Your task to perform on an android device: turn off priority inbox in the gmail app Image 0: 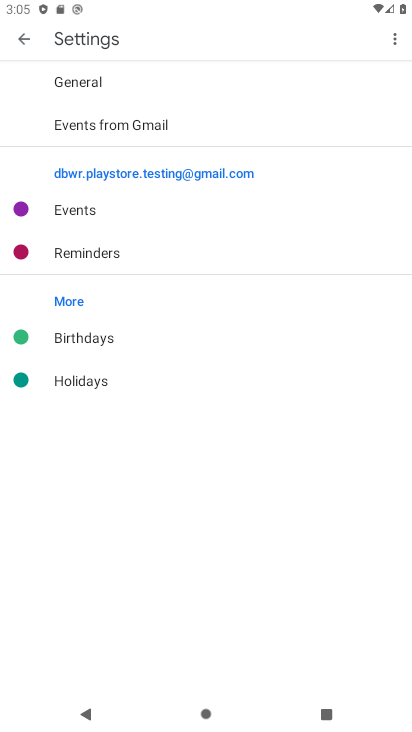
Step 0: press home button
Your task to perform on an android device: turn off priority inbox in the gmail app Image 1: 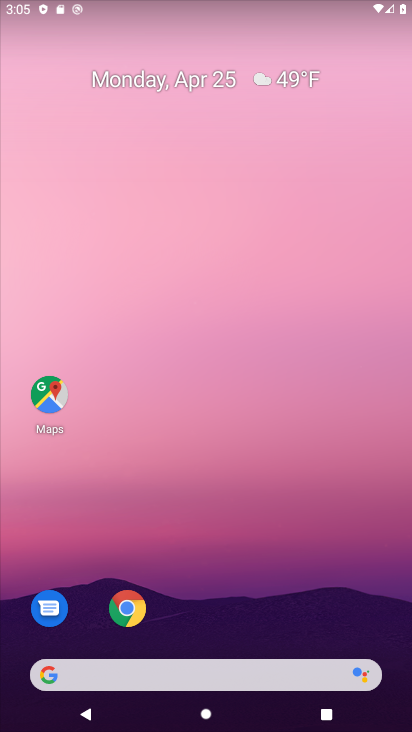
Step 1: drag from (197, 674) to (171, 168)
Your task to perform on an android device: turn off priority inbox in the gmail app Image 2: 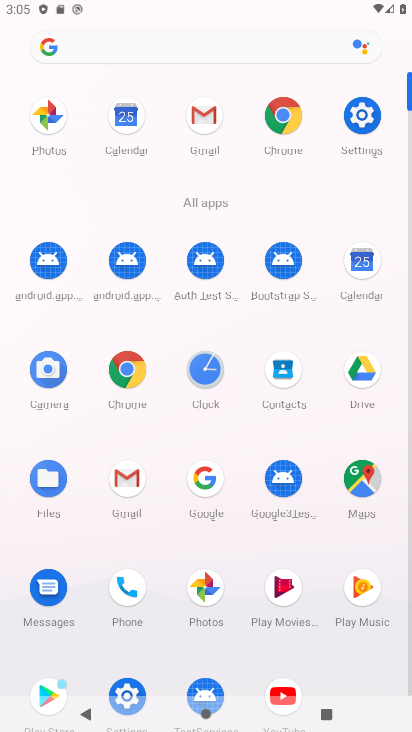
Step 2: click (132, 496)
Your task to perform on an android device: turn off priority inbox in the gmail app Image 3: 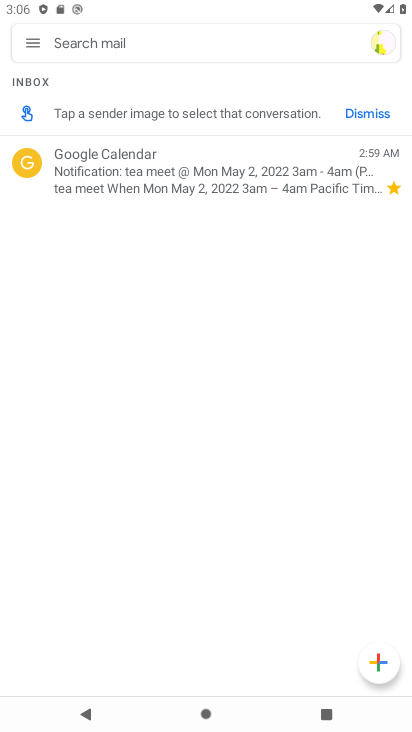
Step 3: click (43, 45)
Your task to perform on an android device: turn off priority inbox in the gmail app Image 4: 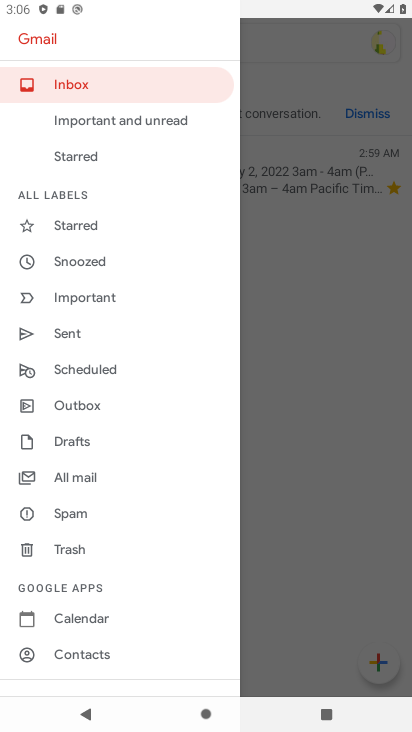
Step 4: drag from (98, 581) to (106, 157)
Your task to perform on an android device: turn off priority inbox in the gmail app Image 5: 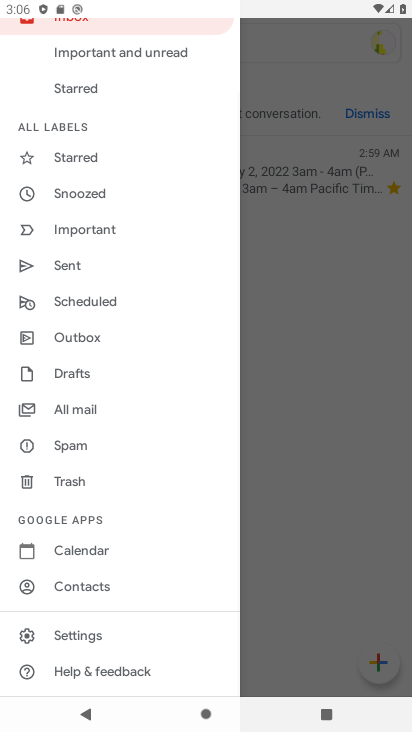
Step 5: click (76, 633)
Your task to perform on an android device: turn off priority inbox in the gmail app Image 6: 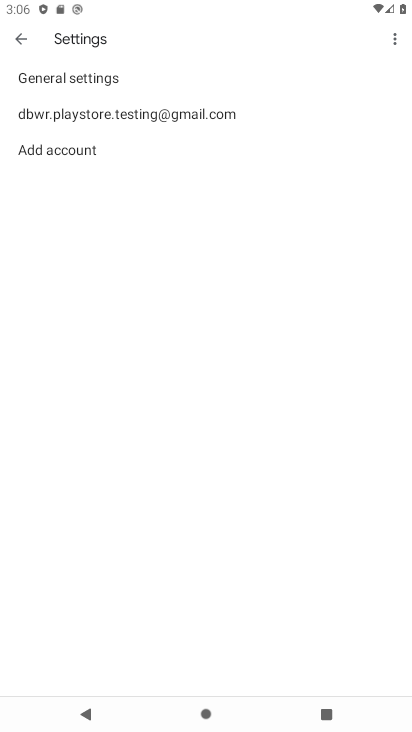
Step 6: click (135, 113)
Your task to perform on an android device: turn off priority inbox in the gmail app Image 7: 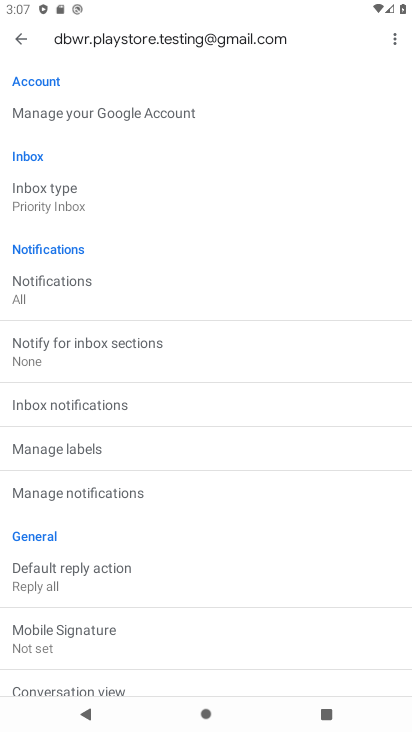
Step 7: click (80, 193)
Your task to perform on an android device: turn off priority inbox in the gmail app Image 8: 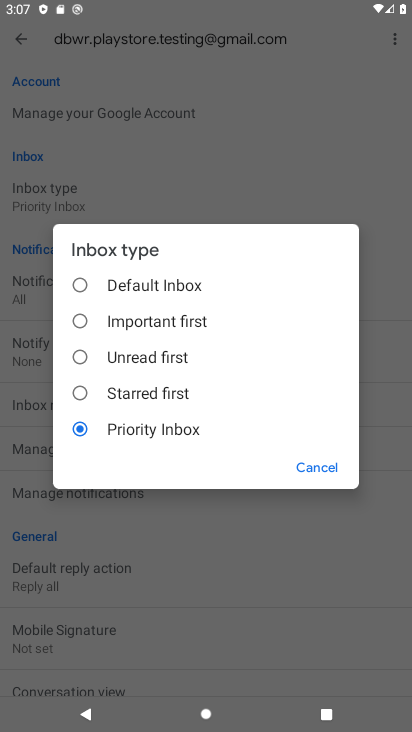
Step 8: click (110, 271)
Your task to perform on an android device: turn off priority inbox in the gmail app Image 9: 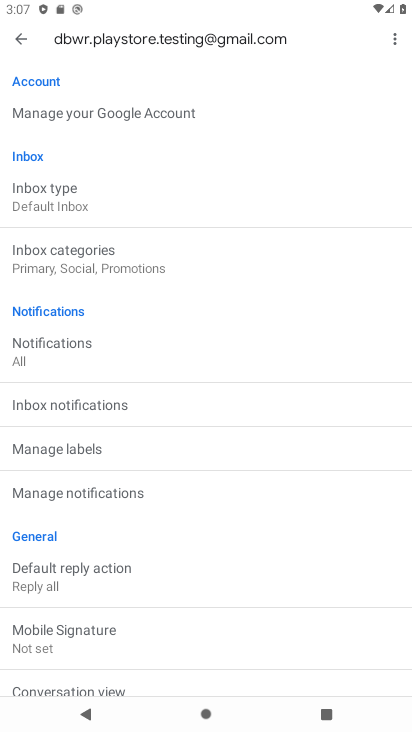
Step 9: task complete